Your task to perform on an android device: see tabs open on other devices in the chrome app Image 0: 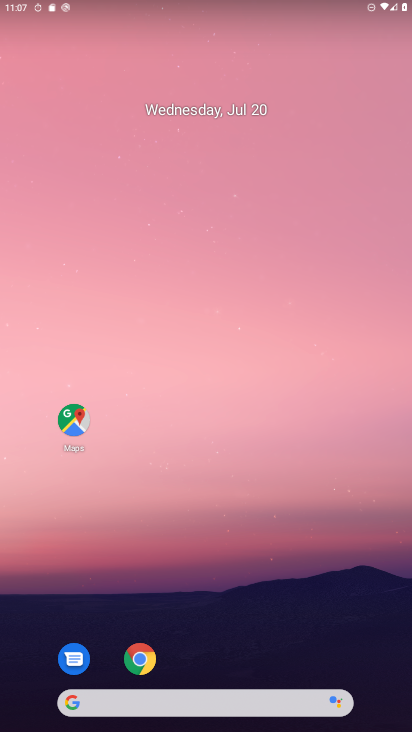
Step 0: drag from (284, 625) to (262, 45)
Your task to perform on an android device: see tabs open on other devices in the chrome app Image 1: 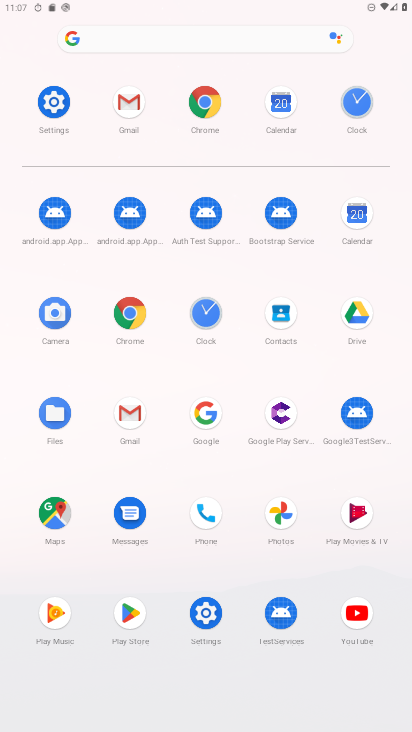
Step 1: click (207, 96)
Your task to perform on an android device: see tabs open on other devices in the chrome app Image 2: 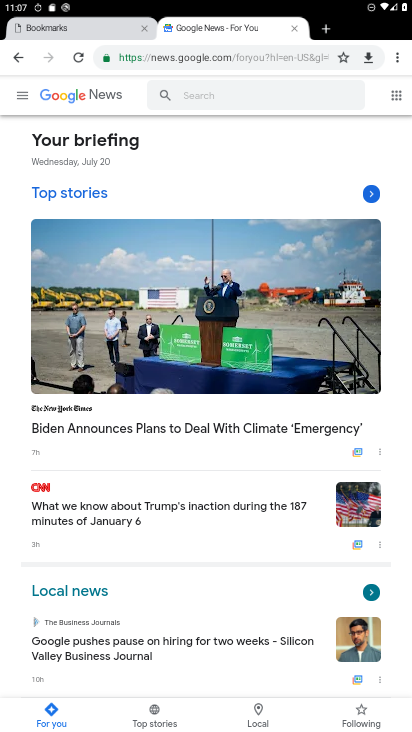
Step 2: task complete